Your task to perform on an android device: remove spam from my inbox in the gmail app Image 0: 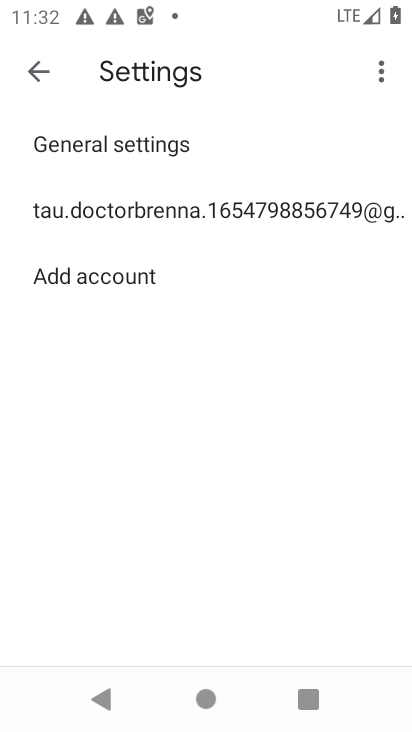
Step 0: press home button
Your task to perform on an android device: remove spam from my inbox in the gmail app Image 1: 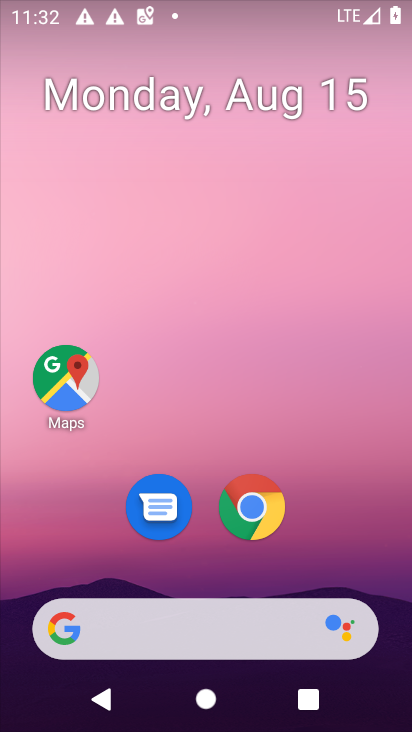
Step 1: drag from (208, 562) to (179, 83)
Your task to perform on an android device: remove spam from my inbox in the gmail app Image 2: 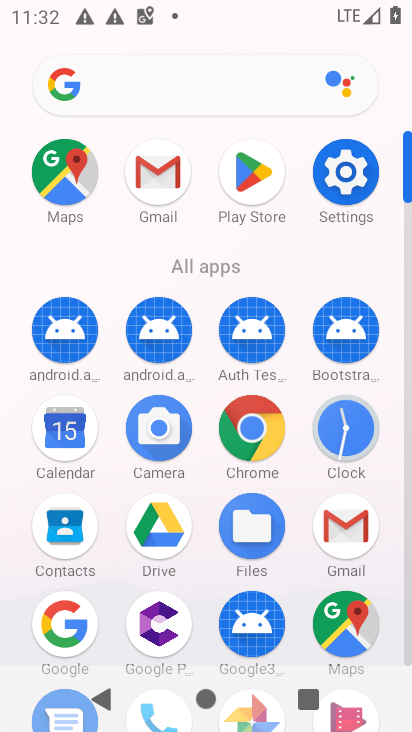
Step 2: click (158, 182)
Your task to perform on an android device: remove spam from my inbox in the gmail app Image 3: 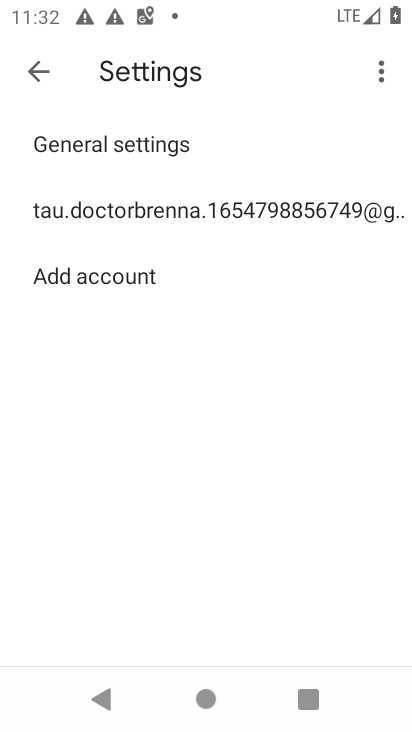
Step 3: click (35, 65)
Your task to perform on an android device: remove spam from my inbox in the gmail app Image 4: 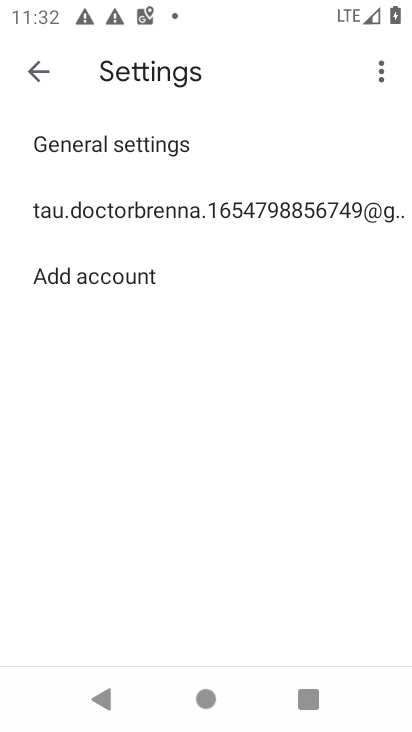
Step 4: click (44, 66)
Your task to perform on an android device: remove spam from my inbox in the gmail app Image 5: 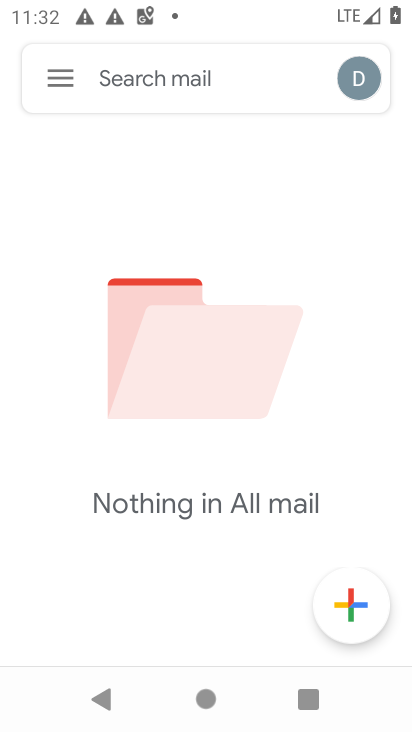
Step 5: click (60, 74)
Your task to perform on an android device: remove spam from my inbox in the gmail app Image 6: 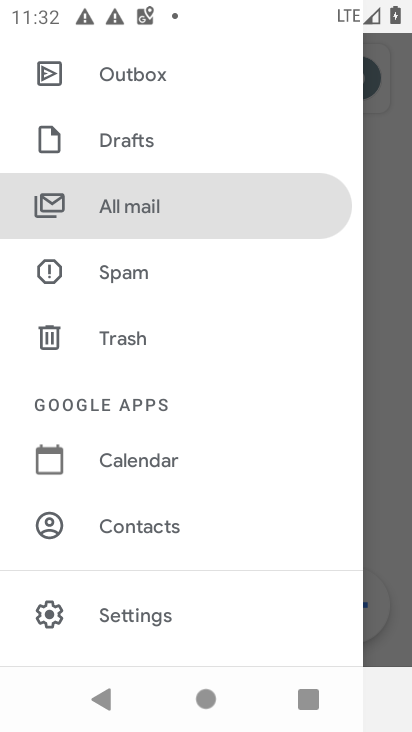
Step 6: click (131, 267)
Your task to perform on an android device: remove spam from my inbox in the gmail app Image 7: 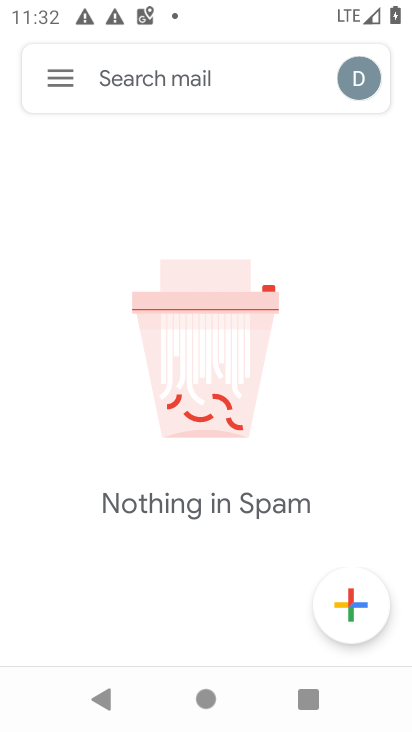
Step 7: task complete